Your task to perform on an android device: turn on location history Image 0: 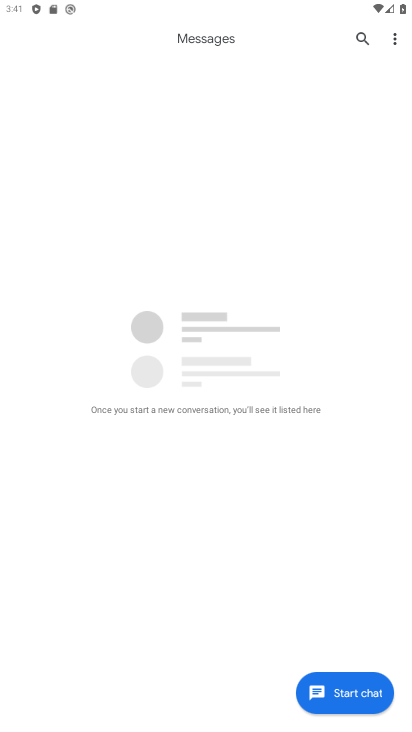
Step 0: press back button
Your task to perform on an android device: turn on location history Image 1: 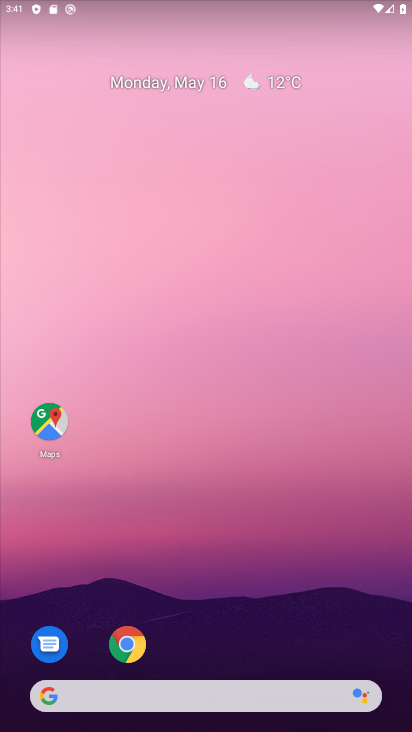
Step 1: drag from (241, 630) to (301, 150)
Your task to perform on an android device: turn on location history Image 2: 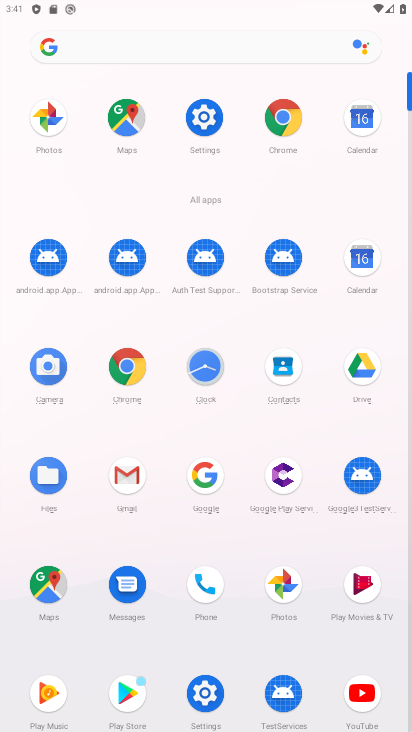
Step 2: click (205, 123)
Your task to perform on an android device: turn on location history Image 3: 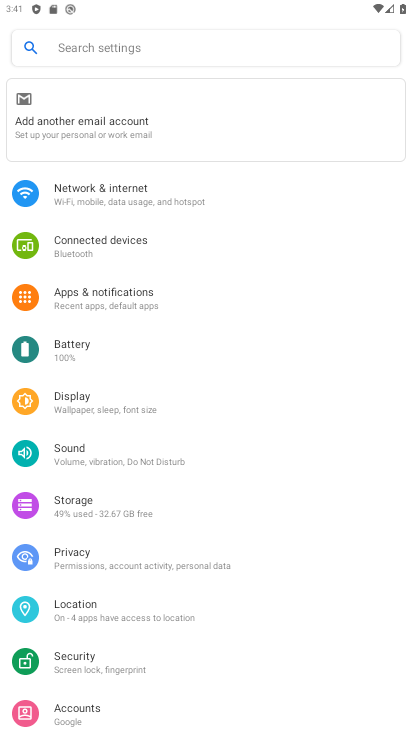
Step 3: click (87, 595)
Your task to perform on an android device: turn on location history Image 4: 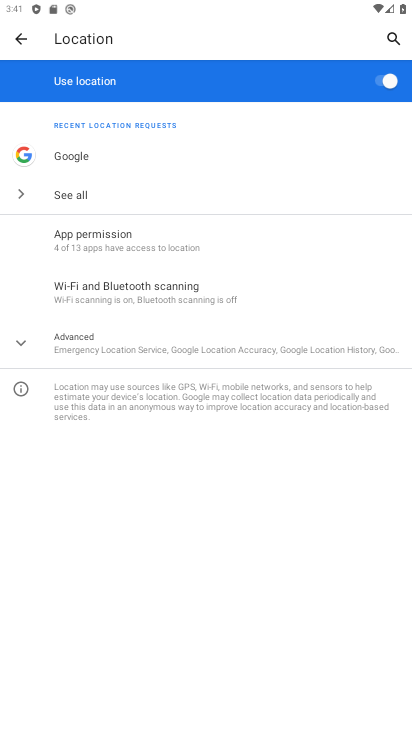
Step 4: click (116, 341)
Your task to perform on an android device: turn on location history Image 5: 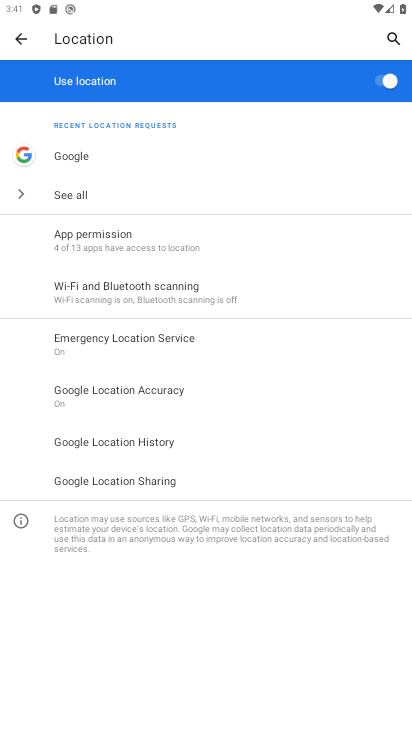
Step 5: click (127, 437)
Your task to perform on an android device: turn on location history Image 6: 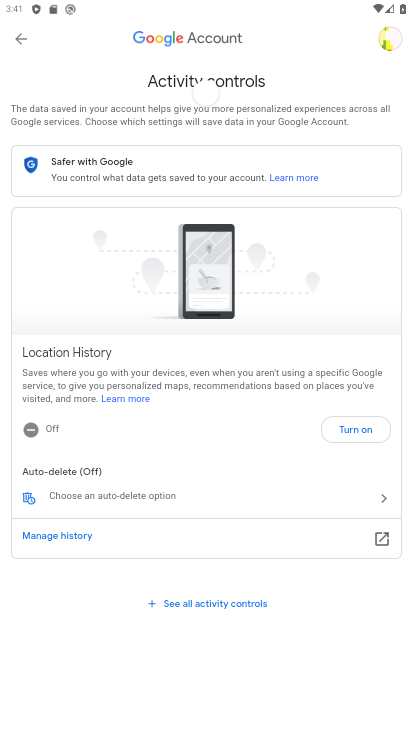
Step 6: click (364, 426)
Your task to perform on an android device: turn on location history Image 7: 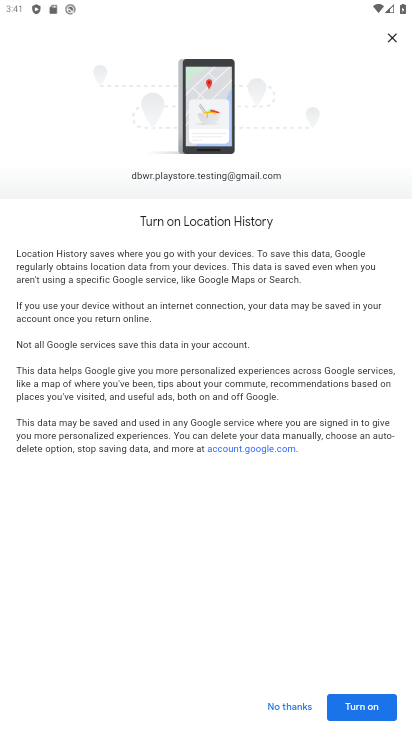
Step 7: click (342, 705)
Your task to perform on an android device: turn on location history Image 8: 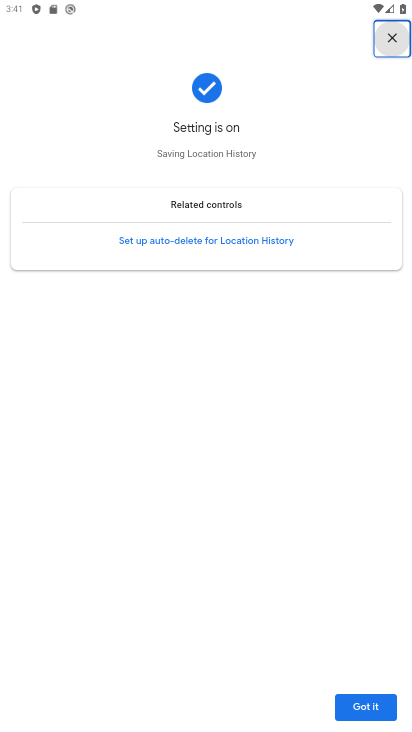
Step 8: task complete